Your task to perform on an android device: Go to battery settings Image 0: 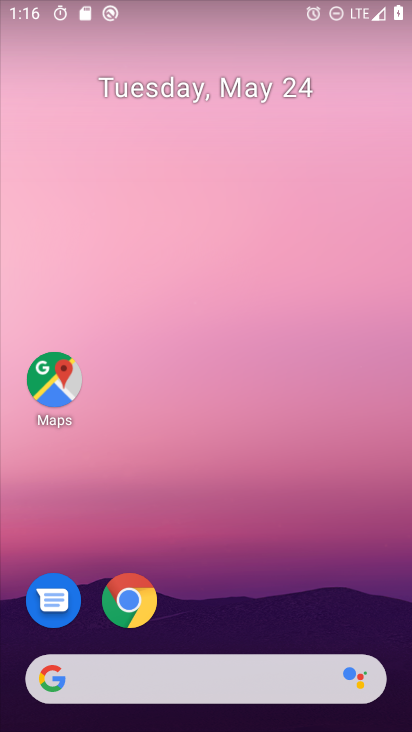
Step 0: drag from (277, 373) to (237, 103)
Your task to perform on an android device: Go to battery settings Image 1: 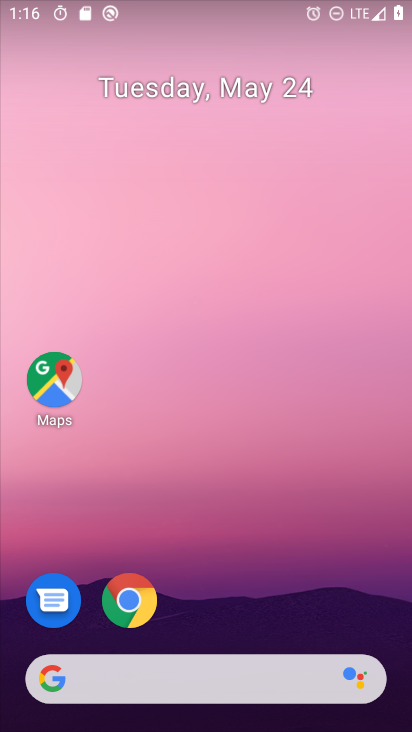
Step 1: drag from (290, 539) to (242, 138)
Your task to perform on an android device: Go to battery settings Image 2: 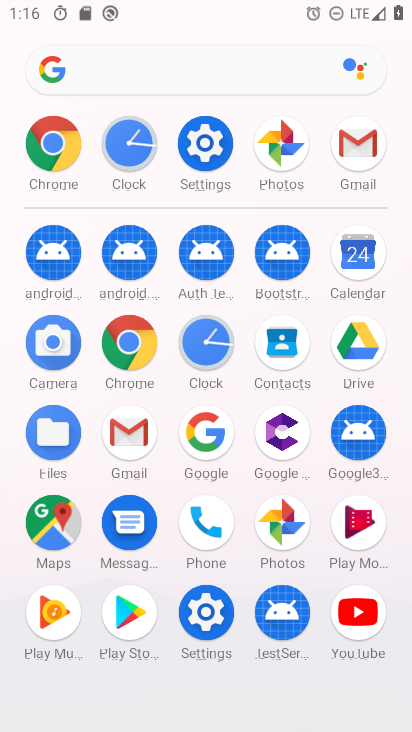
Step 2: click (205, 132)
Your task to perform on an android device: Go to battery settings Image 3: 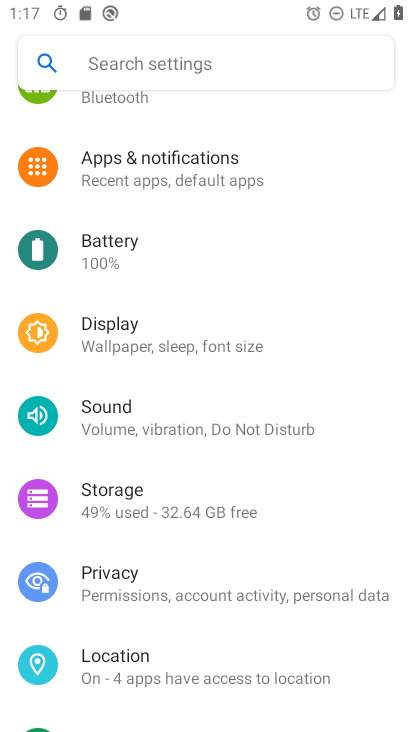
Step 3: click (134, 267)
Your task to perform on an android device: Go to battery settings Image 4: 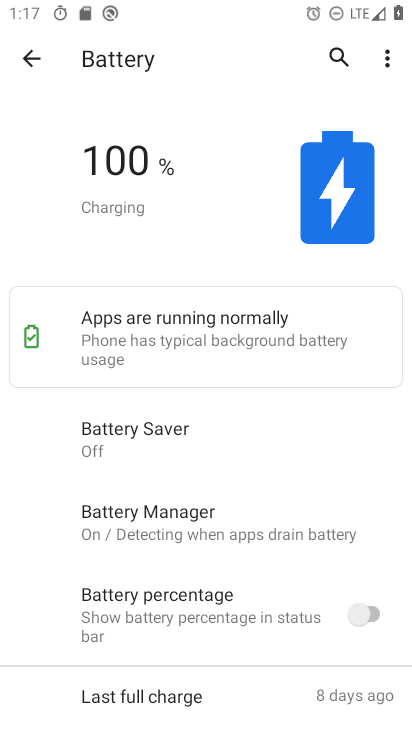
Step 4: task complete